Your task to perform on an android device: create a new album in the google photos Image 0: 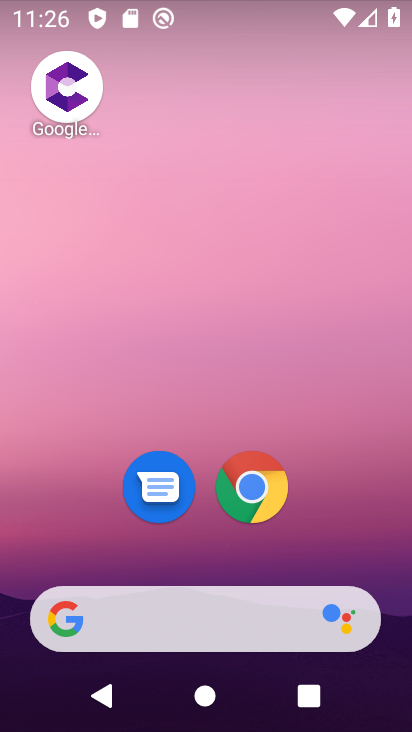
Step 0: drag from (383, 512) to (361, 64)
Your task to perform on an android device: create a new album in the google photos Image 1: 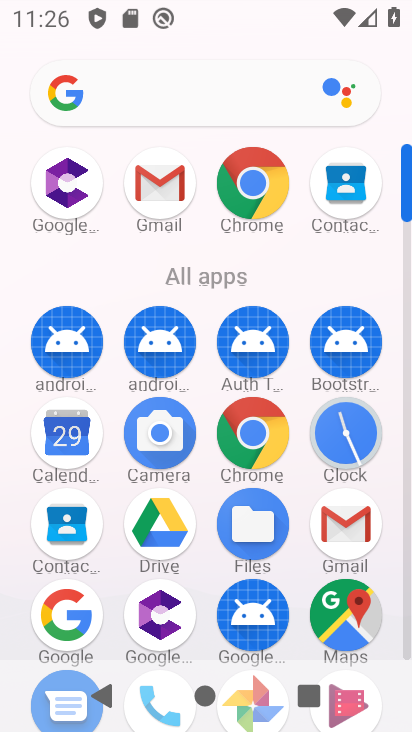
Step 1: drag from (212, 585) to (205, 429)
Your task to perform on an android device: create a new album in the google photos Image 2: 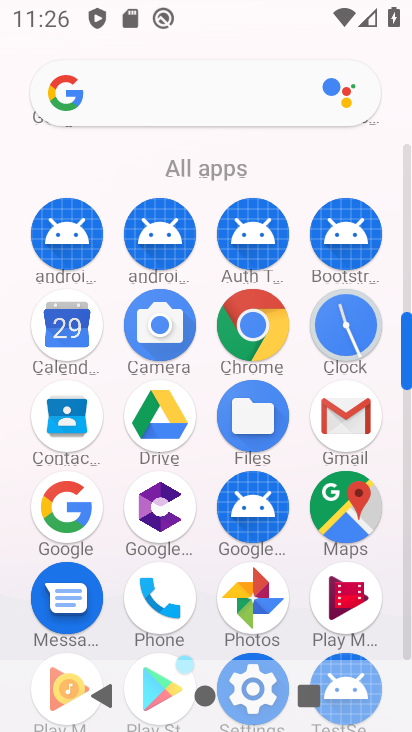
Step 2: click (267, 613)
Your task to perform on an android device: create a new album in the google photos Image 3: 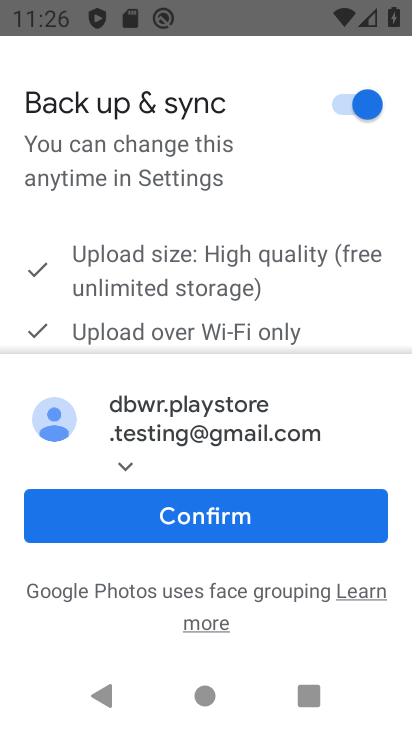
Step 3: click (254, 506)
Your task to perform on an android device: create a new album in the google photos Image 4: 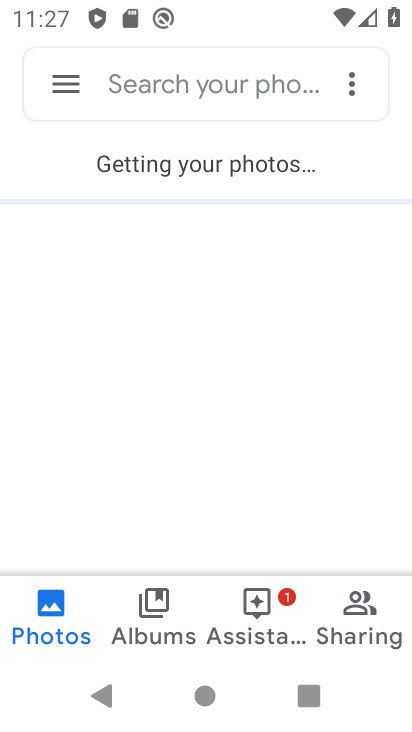
Step 4: drag from (160, 554) to (156, 503)
Your task to perform on an android device: create a new album in the google photos Image 5: 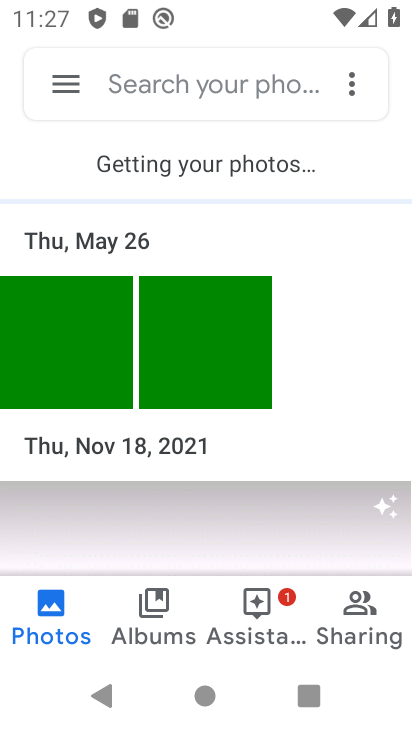
Step 5: click (106, 351)
Your task to perform on an android device: create a new album in the google photos Image 6: 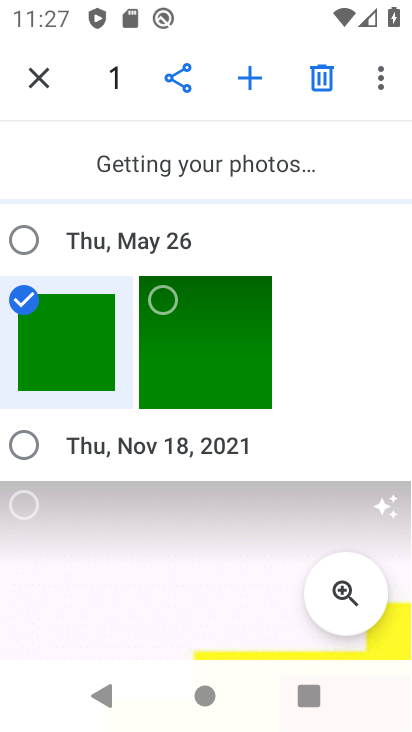
Step 6: click (265, 76)
Your task to perform on an android device: create a new album in the google photos Image 7: 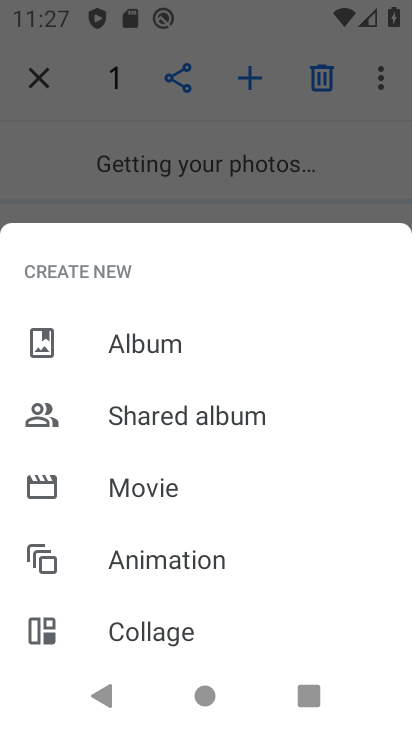
Step 7: click (220, 338)
Your task to perform on an android device: create a new album in the google photos Image 8: 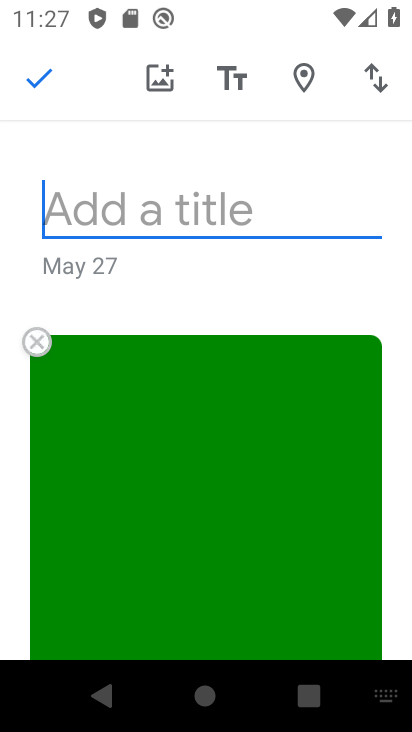
Step 8: type "fgfgf"
Your task to perform on an android device: create a new album in the google photos Image 9: 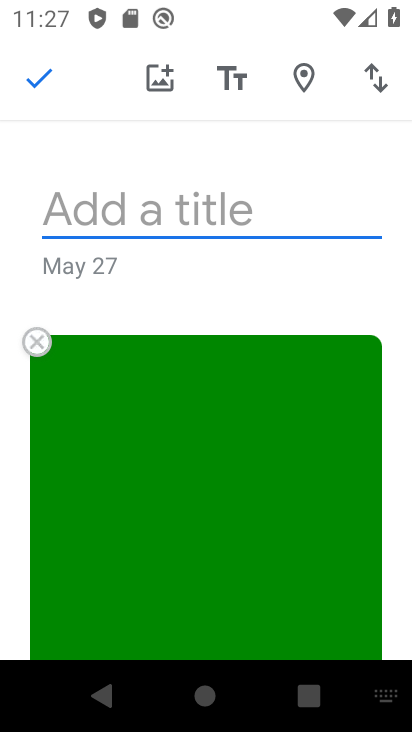
Step 9: click (29, 80)
Your task to perform on an android device: create a new album in the google photos Image 10: 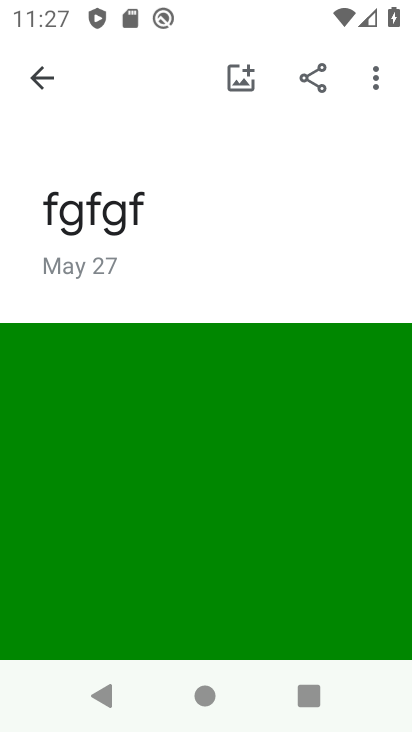
Step 10: task complete